Your task to perform on an android device: Is it going to rain tomorrow? Image 0: 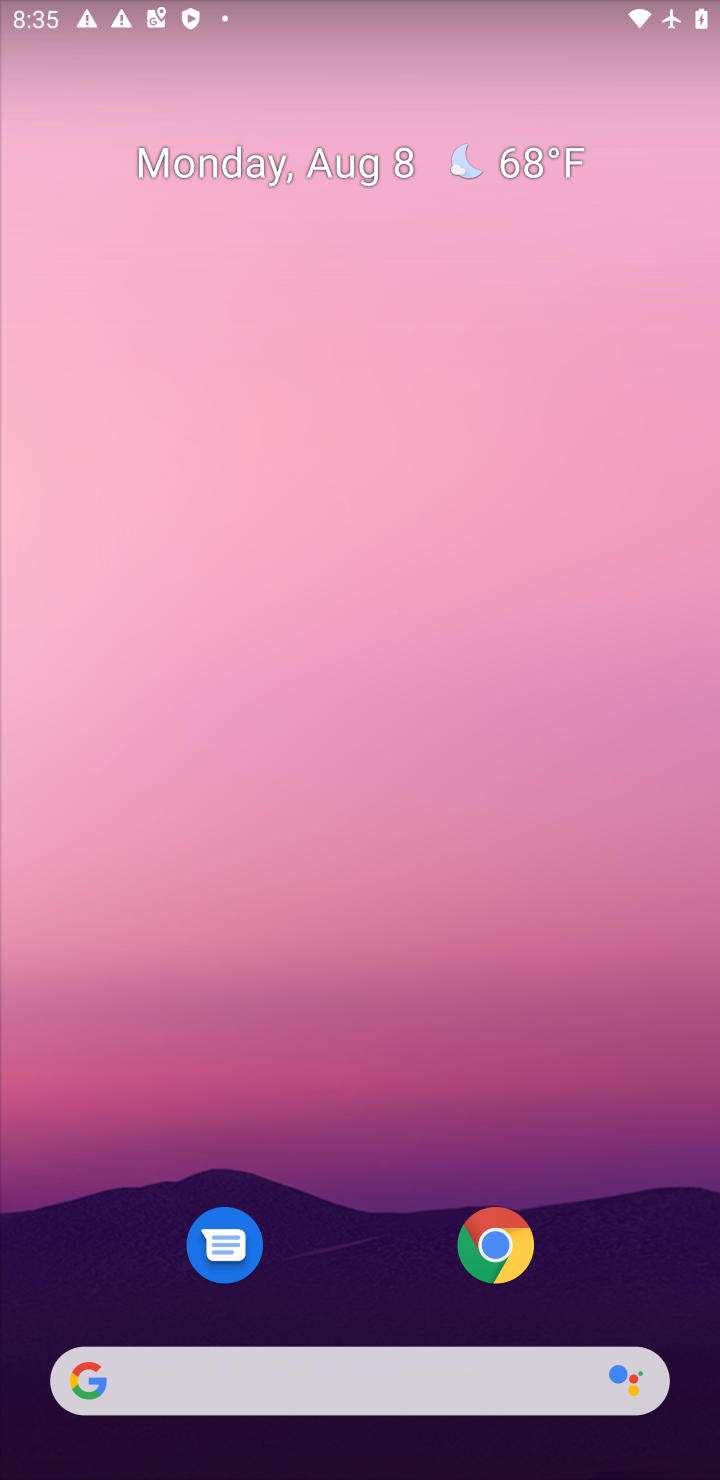
Step 0: click (313, 1380)
Your task to perform on an android device: Is it going to rain tomorrow? Image 1: 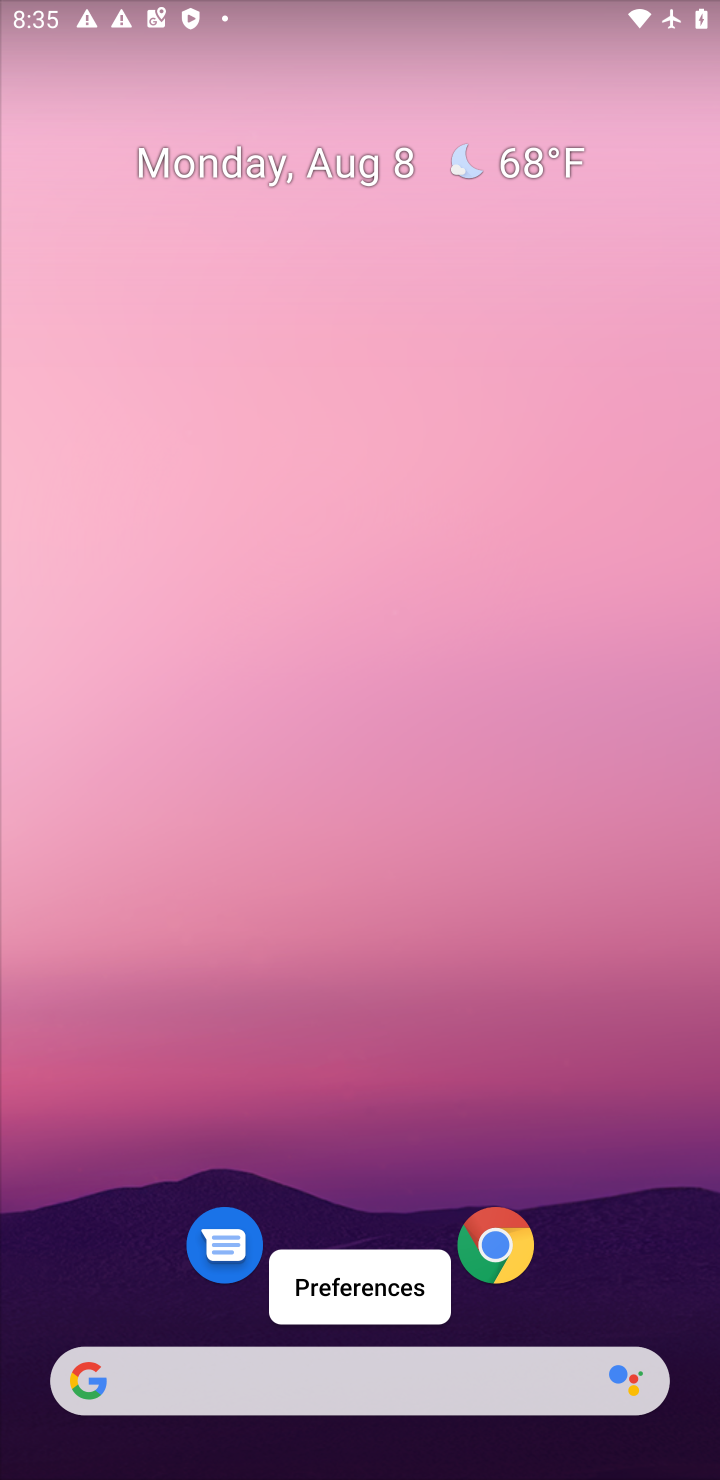
Step 1: click (327, 1378)
Your task to perform on an android device: Is it going to rain tomorrow? Image 2: 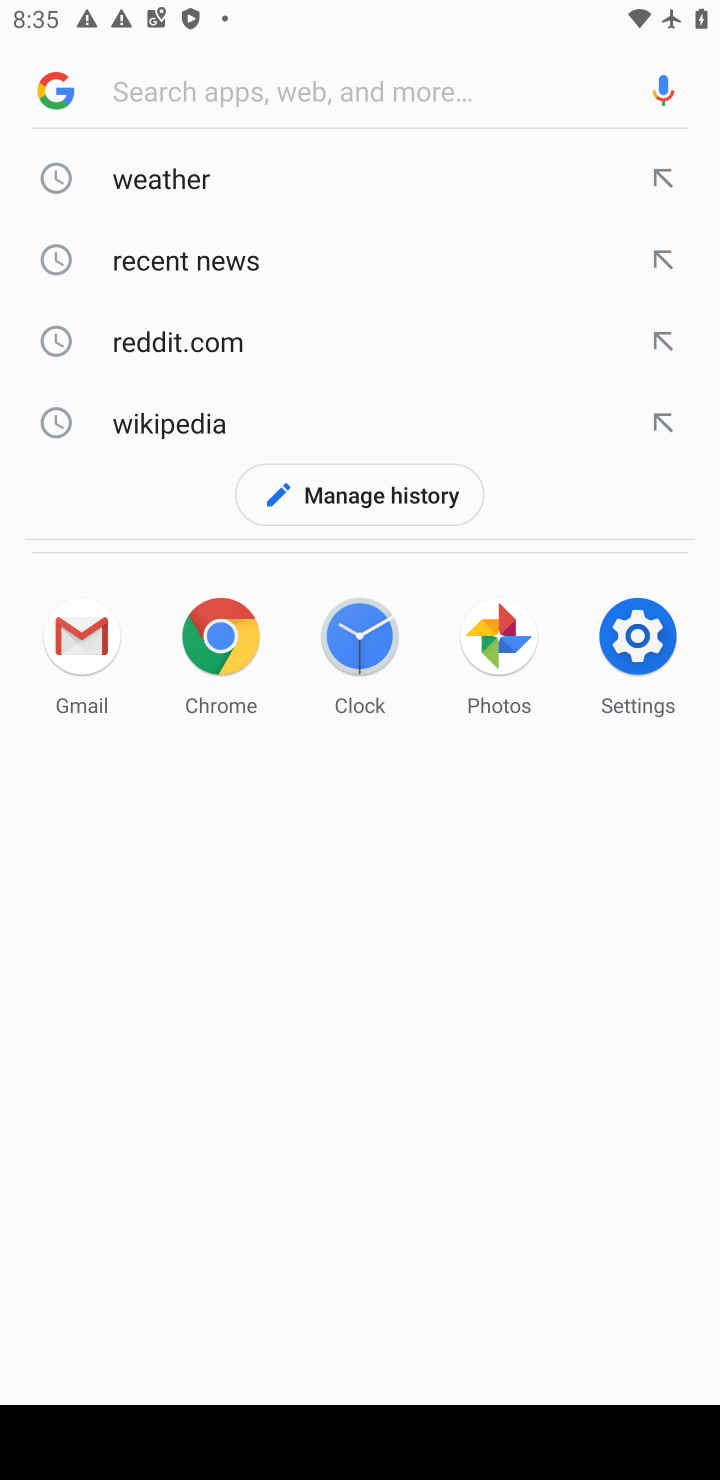
Step 2: click (210, 180)
Your task to perform on an android device: Is it going to rain tomorrow? Image 3: 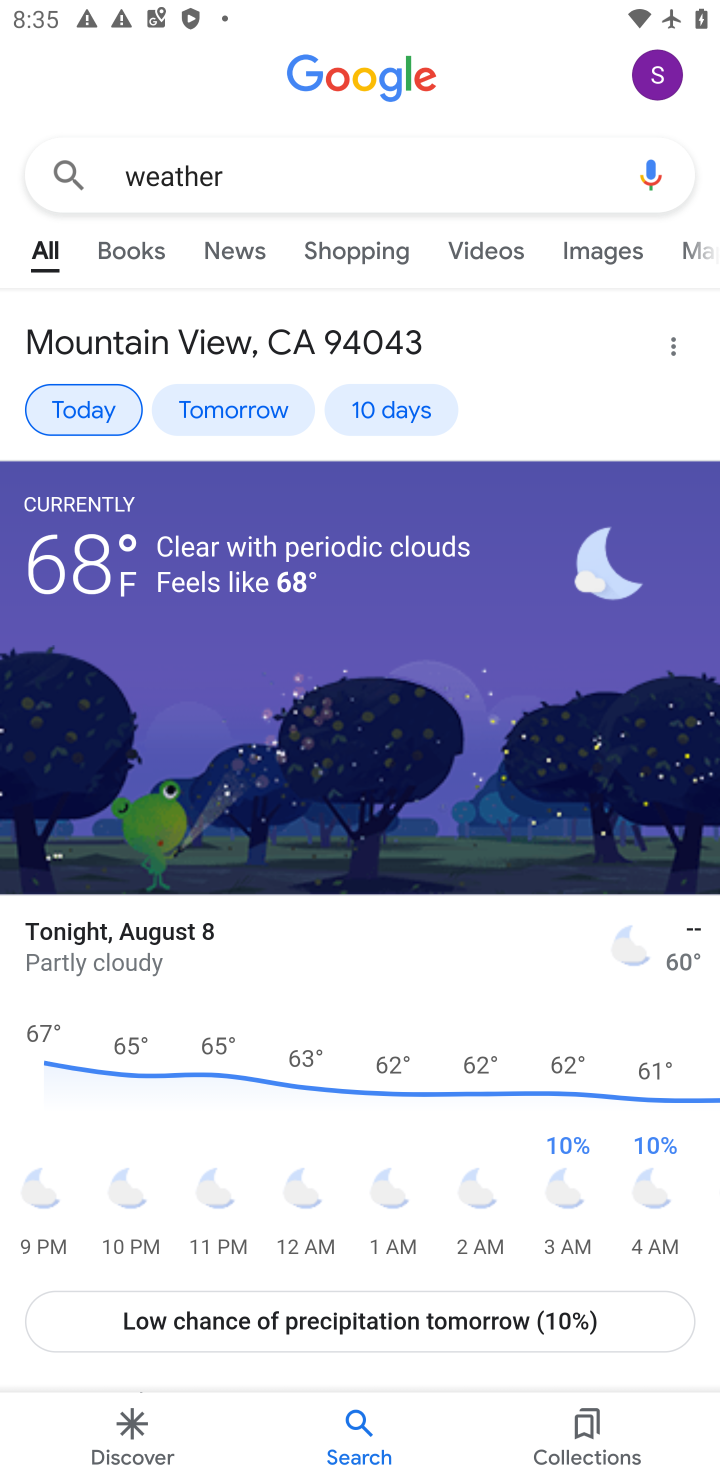
Step 3: click (248, 408)
Your task to perform on an android device: Is it going to rain tomorrow? Image 4: 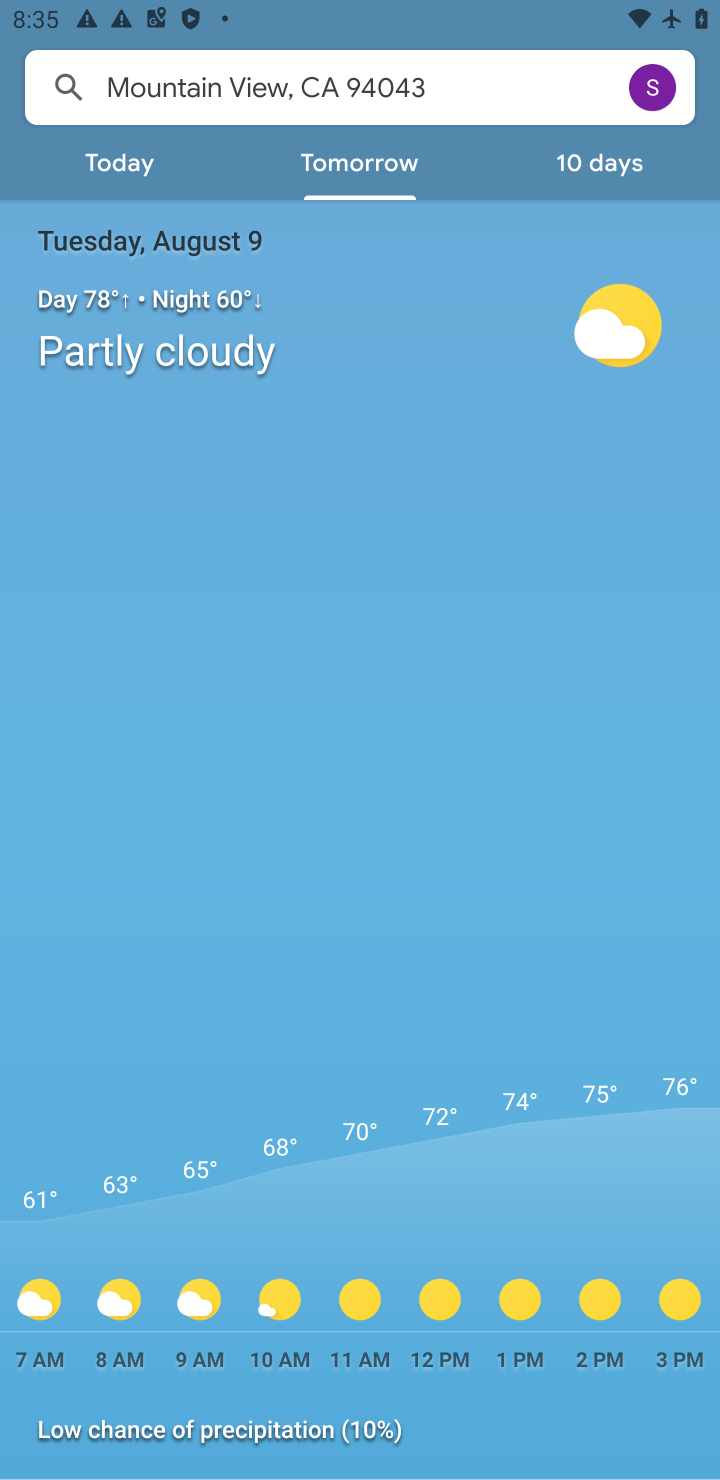
Step 4: task complete